Your task to perform on an android device: Open Google Chrome Image 0: 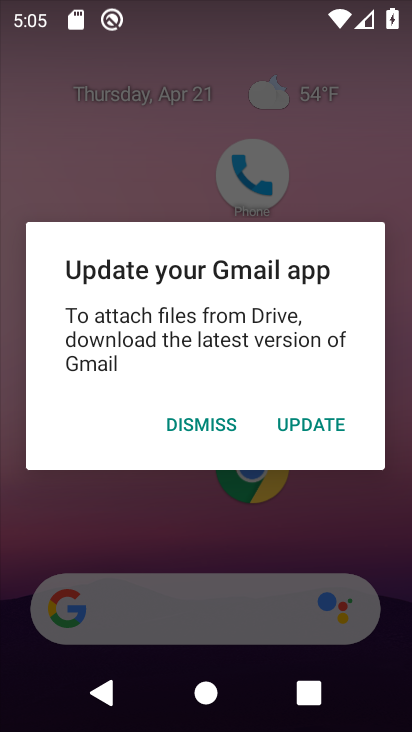
Step 0: press home button
Your task to perform on an android device: Open Google Chrome Image 1: 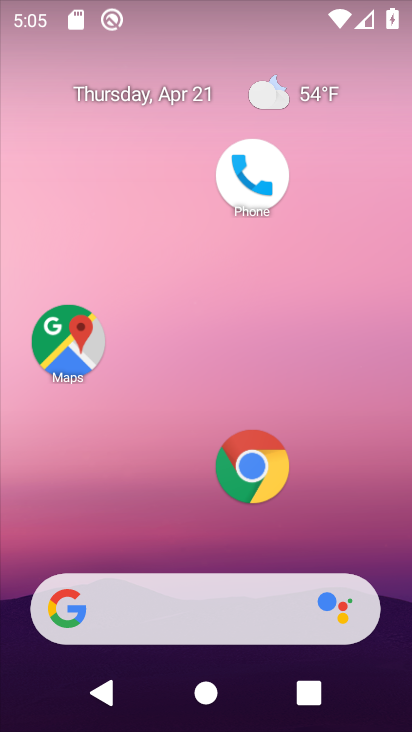
Step 1: click (275, 472)
Your task to perform on an android device: Open Google Chrome Image 2: 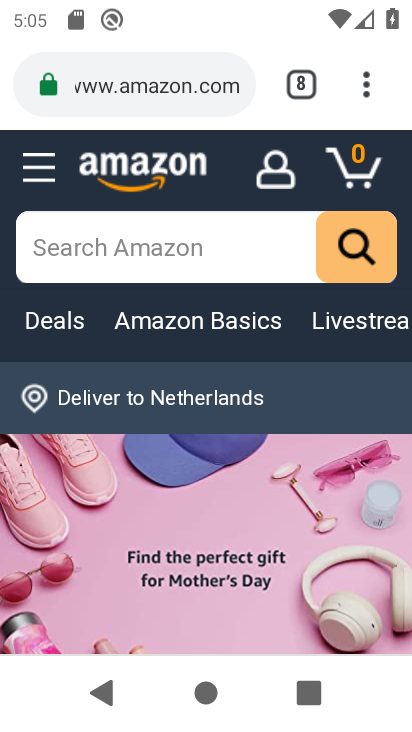
Step 2: task complete